Your task to perform on an android device: turn on the 12-hour format for clock Image 0: 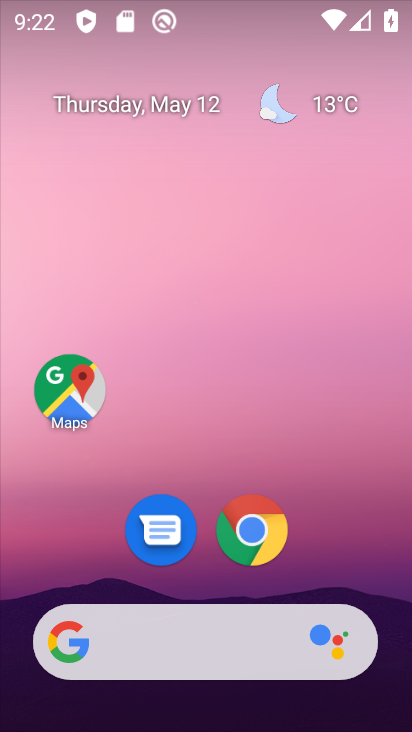
Step 0: drag from (337, 525) to (332, 208)
Your task to perform on an android device: turn on the 12-hour format for clock Image 1: 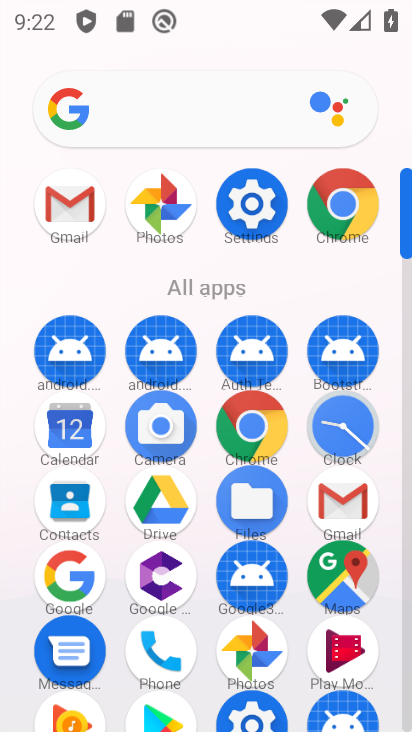
Step 1: click (349, 443)
Your task to perform on an android device: turn on the 12-hour format for clock Image 2: 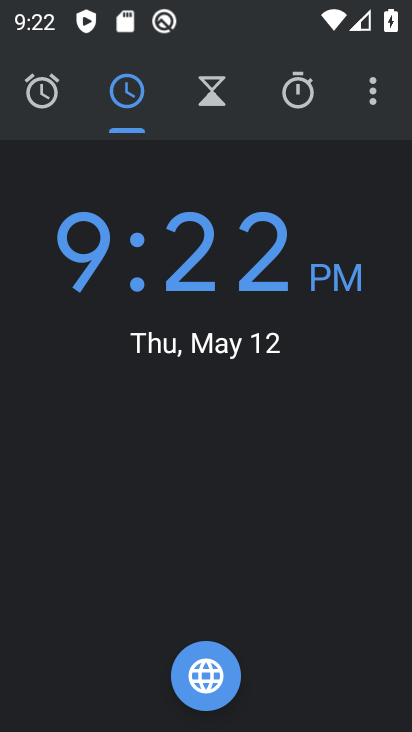
Step 2: click (208, 86)
Your task to perform on an android device: turn on the 12-hour format for clock Image 3: 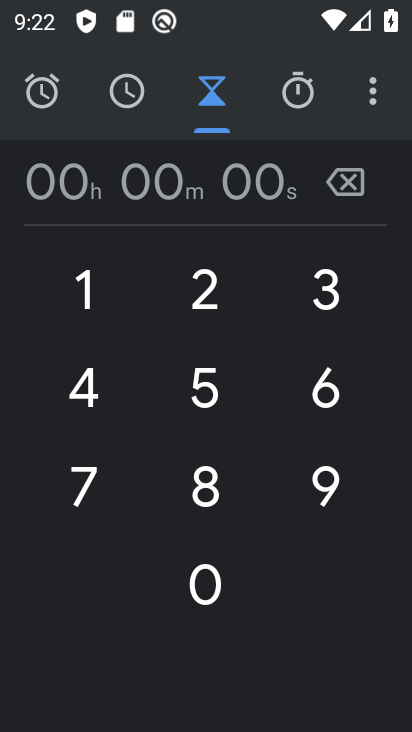
Step 3: click (281, 93)
Your task to perform on an android device: turn on the 12-hour format for clock Image 4: 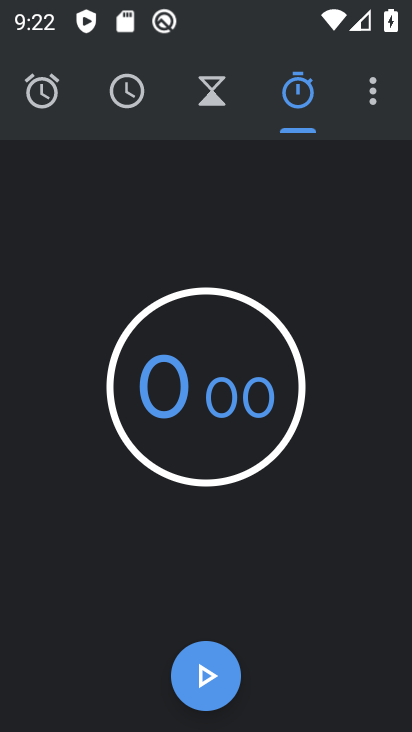
Step 4: click (29, 103)
Your task to perform on an android device: turn on the 12-hour format for clock Image 5: 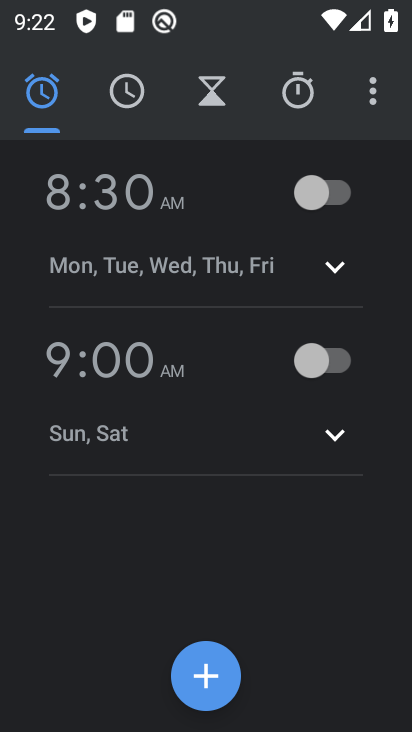
Step 5: click (379, 103)
Your task to perform on an android device: turn on the 12-hour format for clock Image 6: 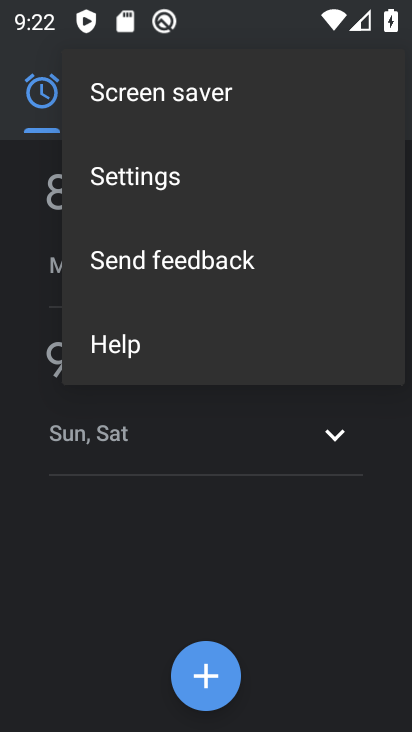
Step 6: press back button
Your task to perform on an android device: turn on the 12-hour format for clock Image 7: 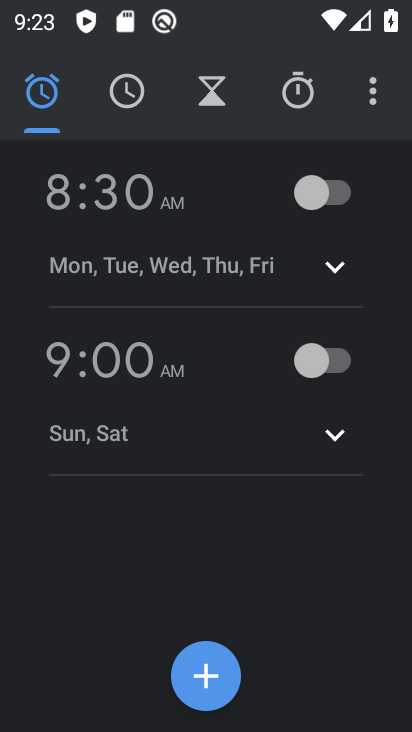
Step 7: click (355, 88)
Your task to perform on an android device: turn on the 12-hour format for clock Image 8: 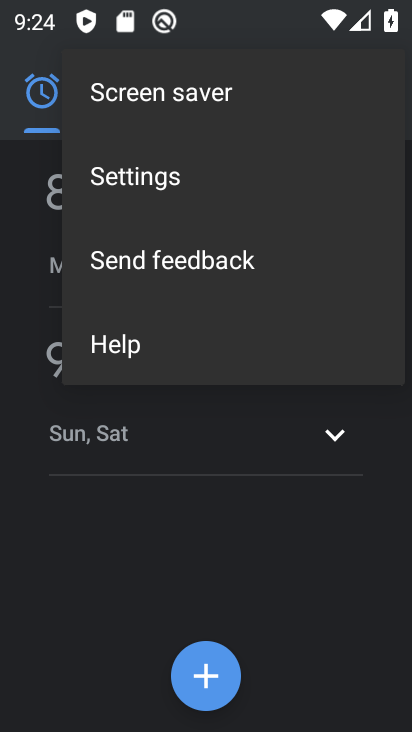
Step 8: click (164, 181)
Your task to perform on an android device: turn on the 12-hour format for clock Image 9: 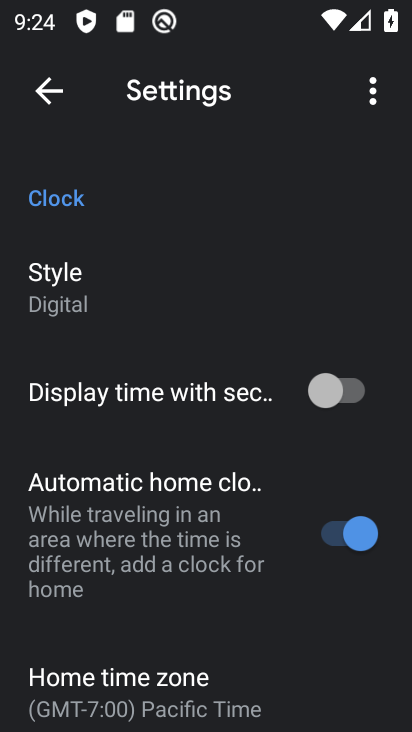
Step 9: click (367, 94)
Your task to perform on an android device: turn on the 12-hour format for clock Image 10: 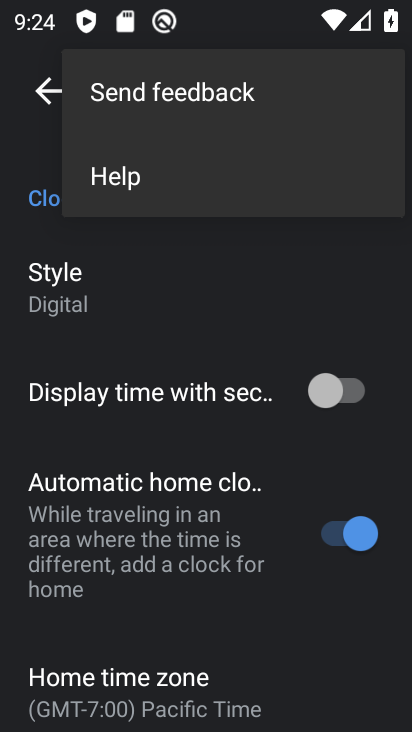
Step 10: click (240, 229)
Your task to perform on an android device: turn on the 12-hour format for clock Image 11: 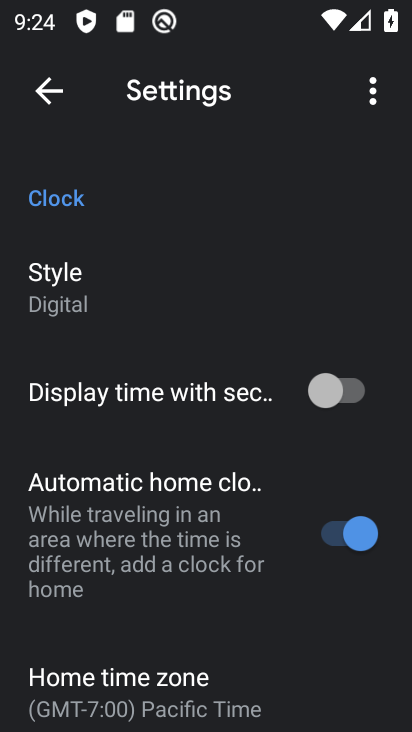
Step 11: click (259, 285)
Your task to perform on an android device: turn on the 12-hour format for clock Image 12: 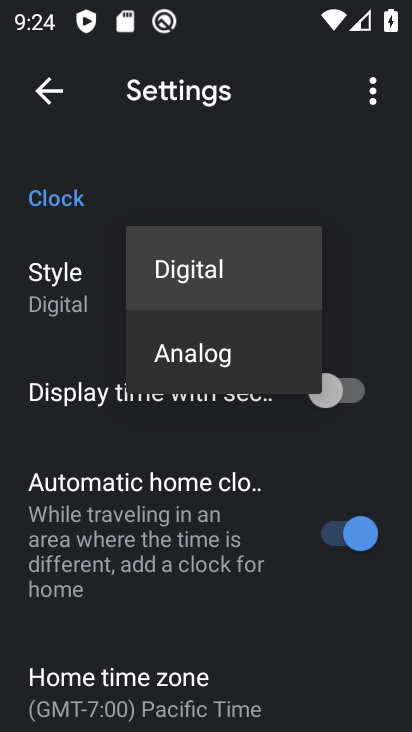
Step 12: drag from (237, 599) to (247, 115)
Your task to perform on an android device: turn on the 12-hour format for clock Image 13: 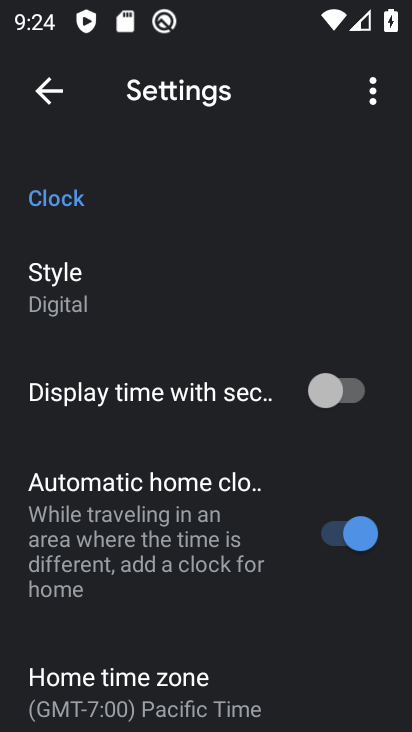
Step 13: drag from (197, 694) to (247, 215)
Your task to perform on an android device: turn on the 12-hour format for clock Image 14: 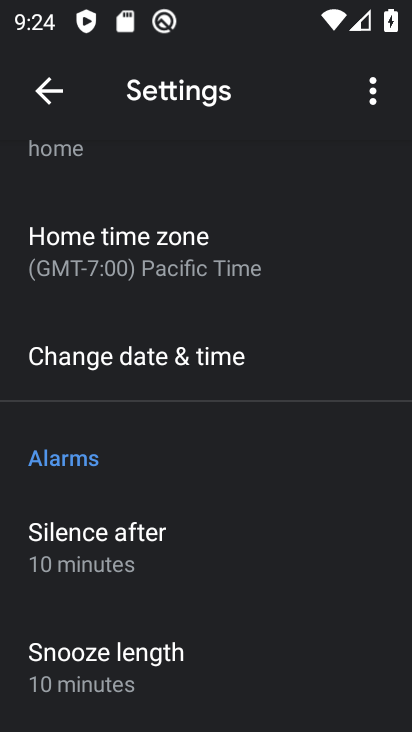
Step 14: drag from (243, 623) to (167, 100)
Your task to perform on an android device: turn on the 12-hour format for clock Image 15: 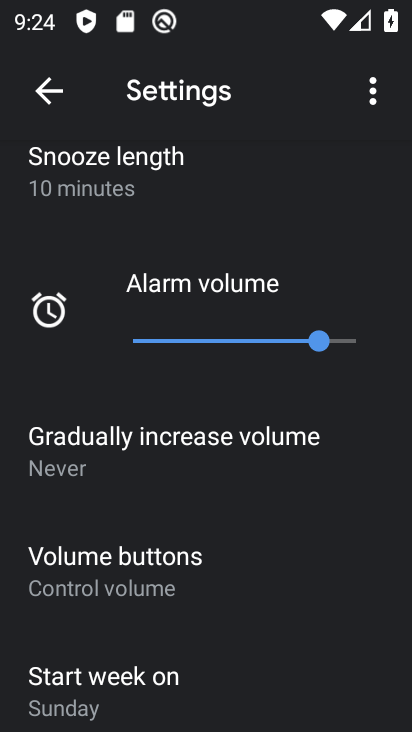
Step 15: drag from (221, 647) to (248, 1)
Your task to perform on an android device: turn on the 12-hour format for clock Image 16: 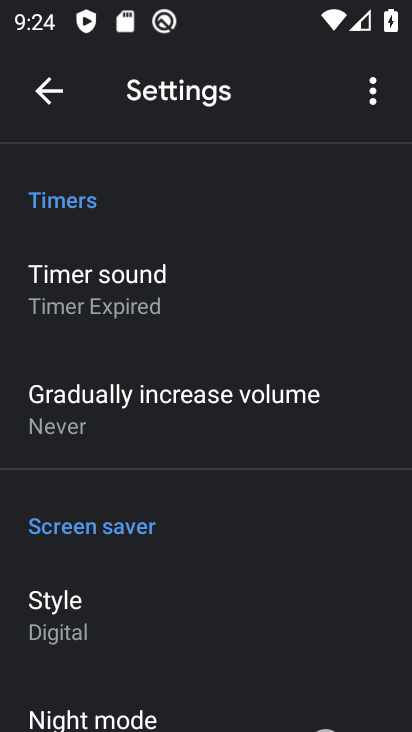
Step 16: drag from (221, 604) to (288, 198)
Your task to perform on an android device: turn on the 12-hour format for clock Image 17: 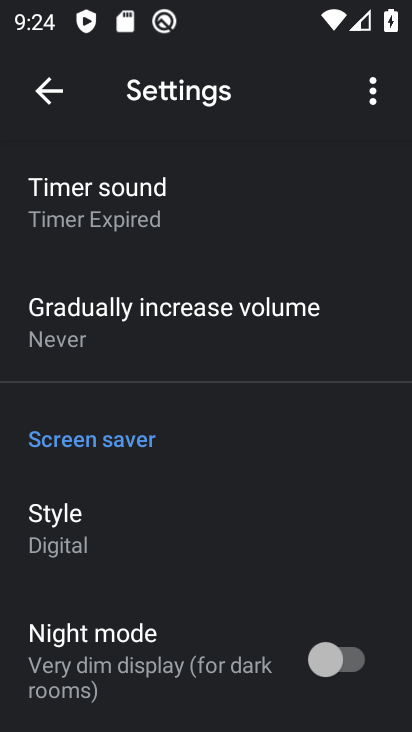
Step 17: drag from (279, 581) to (303, 638)
Your task to perform on an android device: turn on the 12-hour format for clock Image 18: 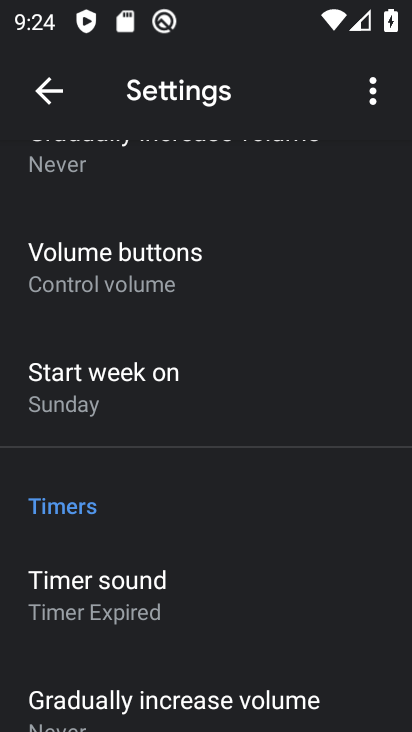
Step 18: drag from (184, 242) to (190, 496)
Your task to perform on an android device: turn on the 12-hour format for clock Image 19: 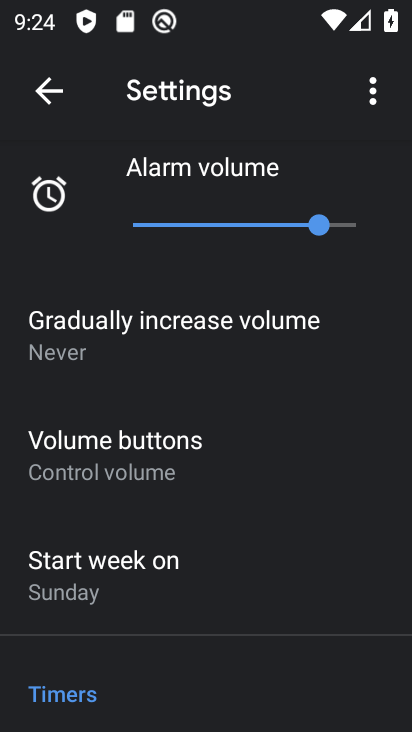
Step 19: drag from (159, 285) to (207, 480)
Your task to perform on an android device: turn on the 12-hour format for clock Image 20: 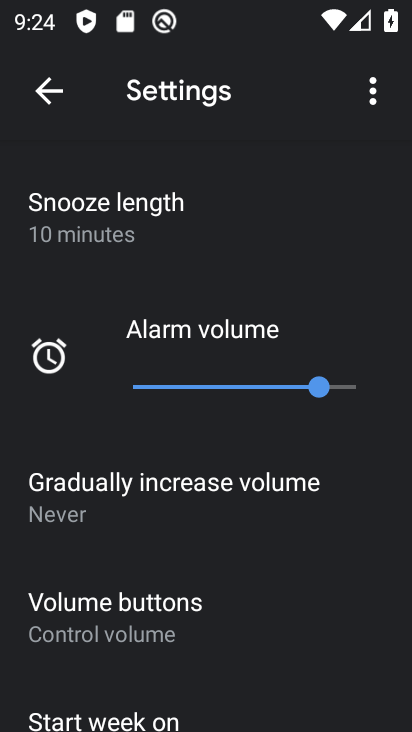
Step 20: drag from (161, 182) to (173, 434)
Your task to perform on an android device: turn on the 12-hour format for clock Image 21: 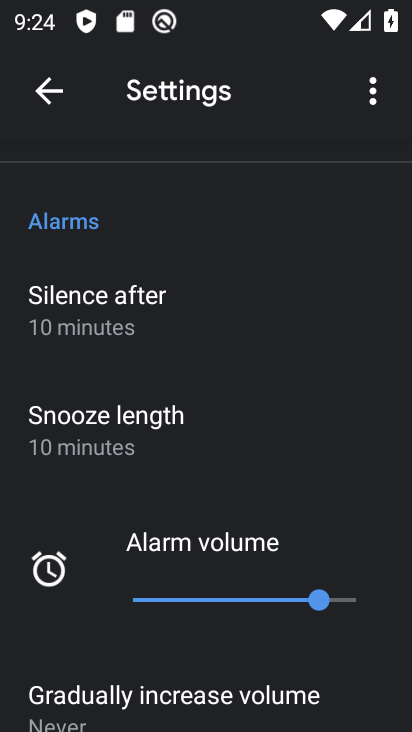
Step 21: drag from (160, 145) to (175, 406)
Your task to perform on an android device: turn on the 12-hour format for clock Image 22: 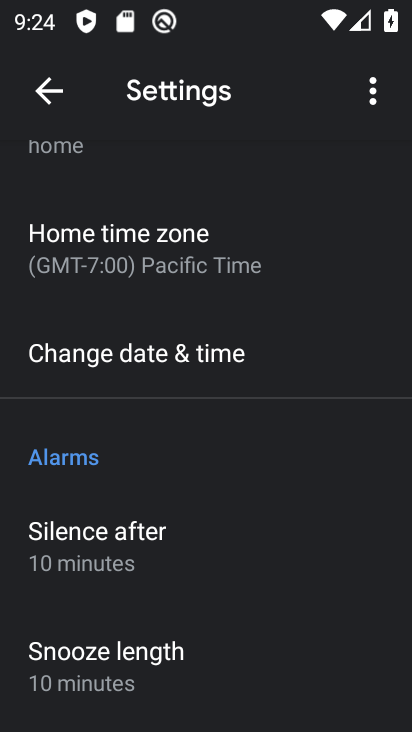
Step 22: click (155, 348)
Your task to perform on an android device: turn on the 12-hour format for clock Image 23: 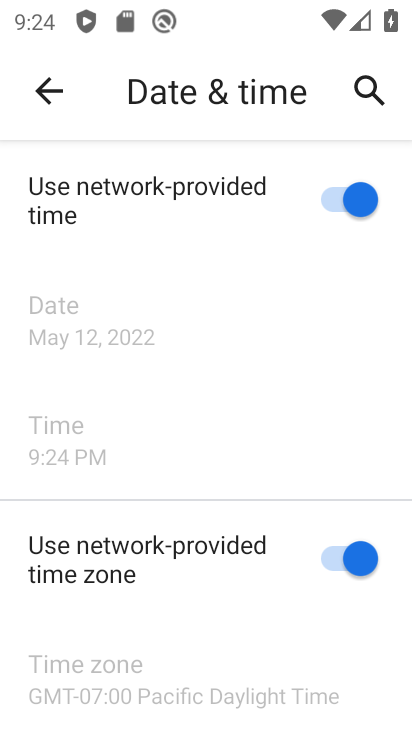
Step 23: task complete